Your task to perform on an android device: open app "Google Chat" Image 0: 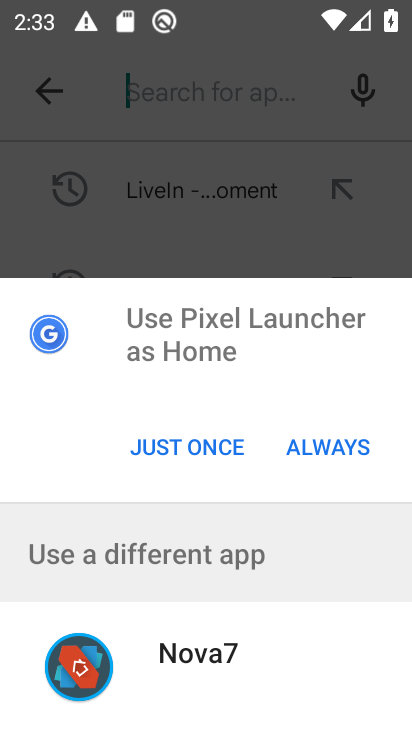
Step 0: click (144, 444)
Your task to perform on an android device: open app "Google Chat" Image 1: 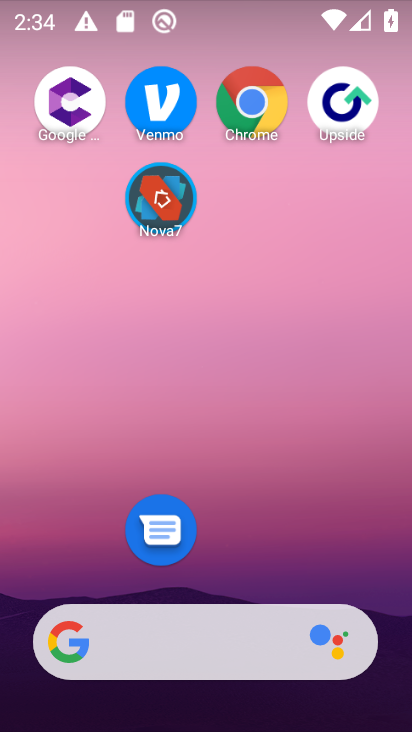
Step 1: drag from (347, 501) to (346, 4)
Your task to perform on an android device: open app "Google Chat" Image 2: 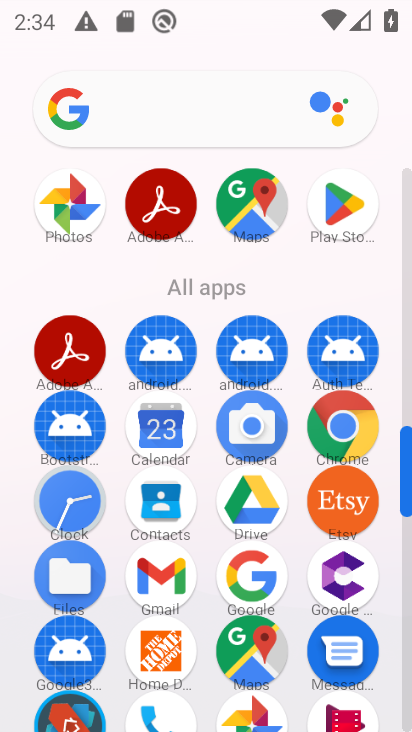
Step 2: click (335, 209)
Your task to perform on an android device: open app "Google Chat" Image 3: 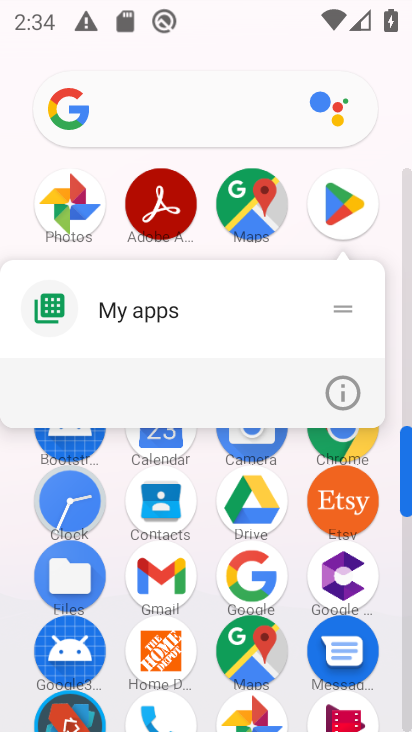
Step 3: click (335, 207)
Your task to perform on an android device: open app "Google Chat" Image 4: 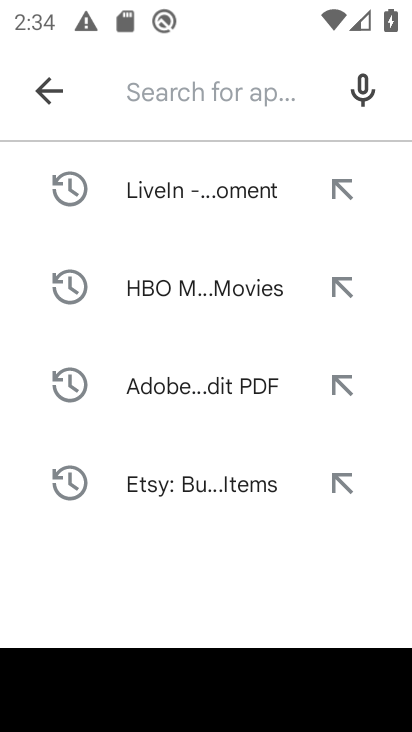
Step 4: type "Google Chat"
Your task to perform on an android device: open app "Google Chat" Image 5: 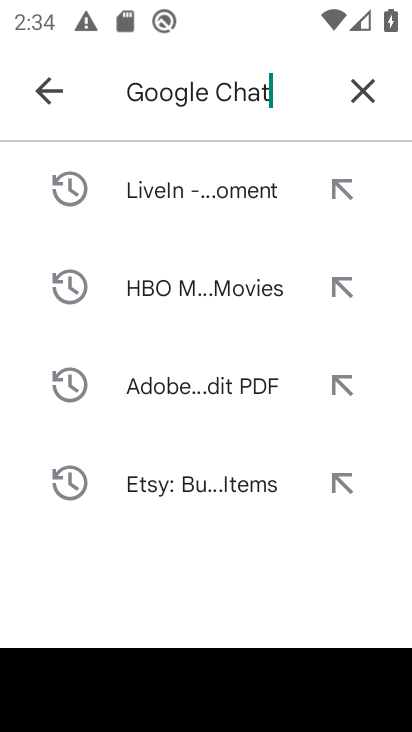
Step 5: press enter
Your task to perform on an android device: open app "Google Chat" Image 6: 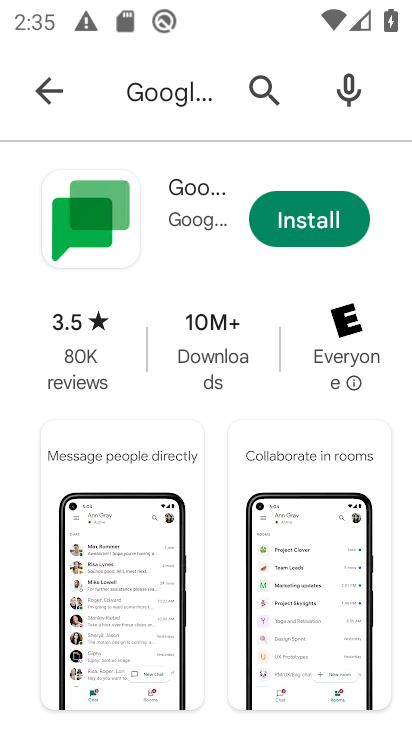
Step 6: task complete